Your task to perform on an android device: Open my contact list Image 0: 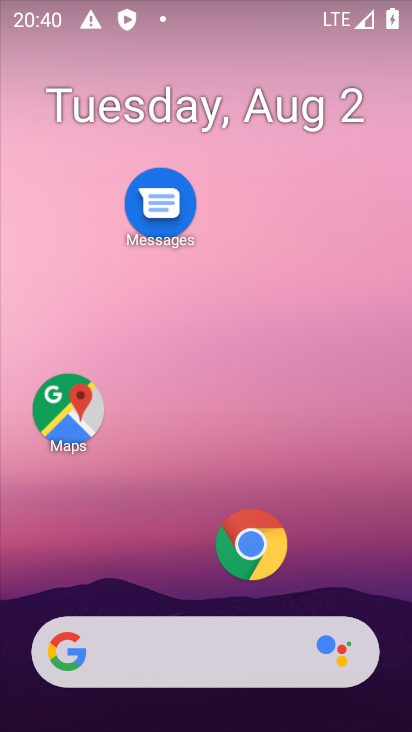
Step 0: drag from (200, 596) to (209, 172)
Your task to perform on an android device: Open my contact list Image 1: 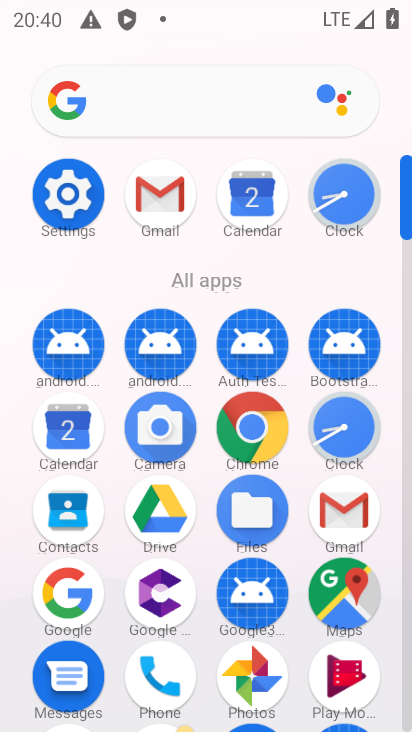
Step 1: click (69, 522)
Your task to perform on an android device: Open my contact list Image 2: 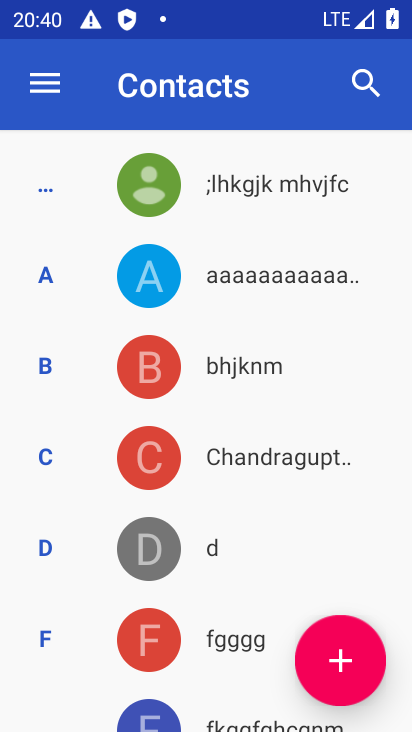
Step 2: task complete